Your task to perform on an android device: toggle location history Image 0: 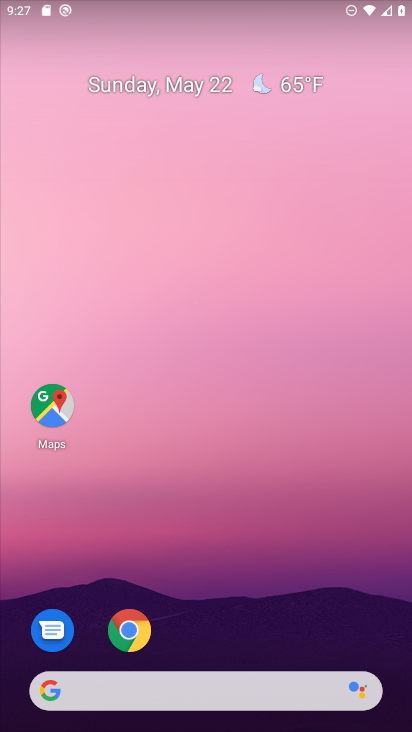
Step 0: click (48, 408)
Your task to perform on an android device: toggle location history Image 1: 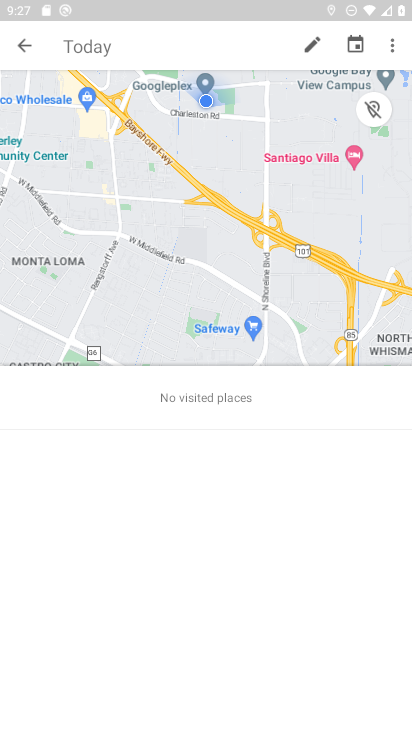
Step 1: click (392, 50)
Your task to perform on an android device: toggle location history Image 2: 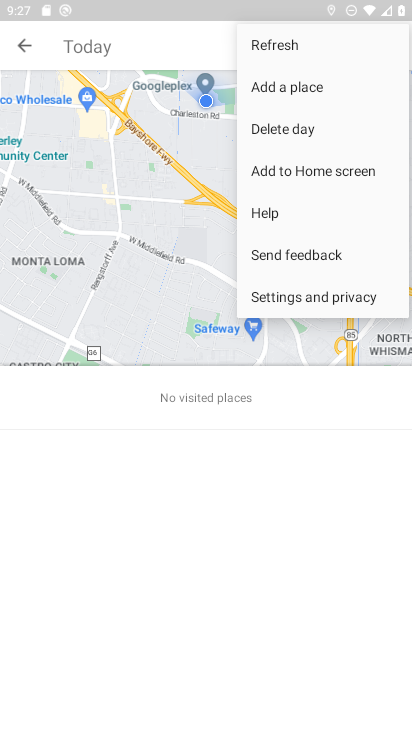
Step 2: click (268, 296)
Your task to perform on an android device: toggle location history Image 3: 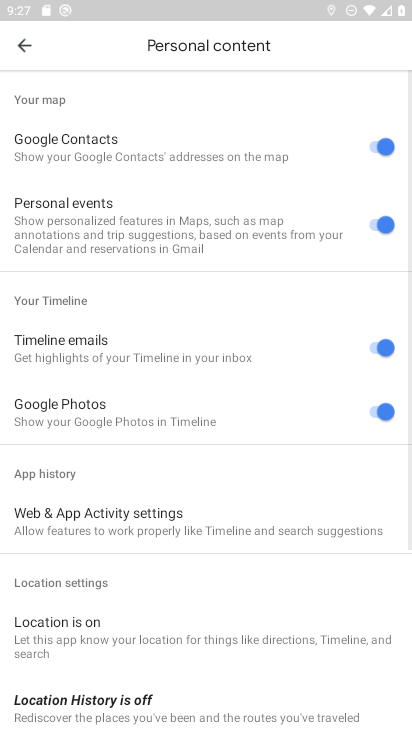
Step 3: drag from (174, 649) to (247, 271)
Your task to perform on an android device: toggle location history Image 4: 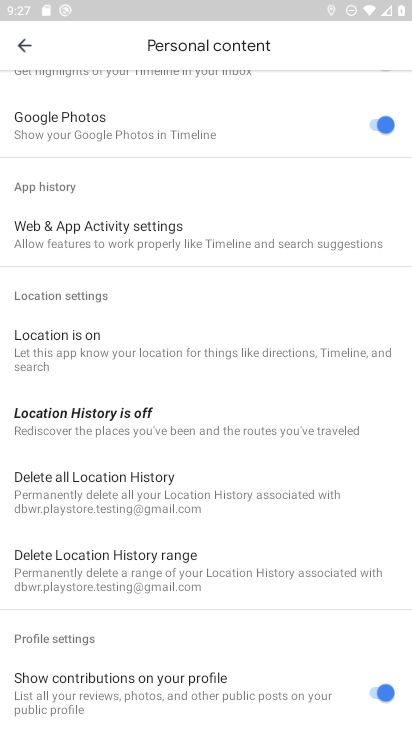
Step 4: click (124, 417)
Your task to perform on an android device: toggle location history Image 5: 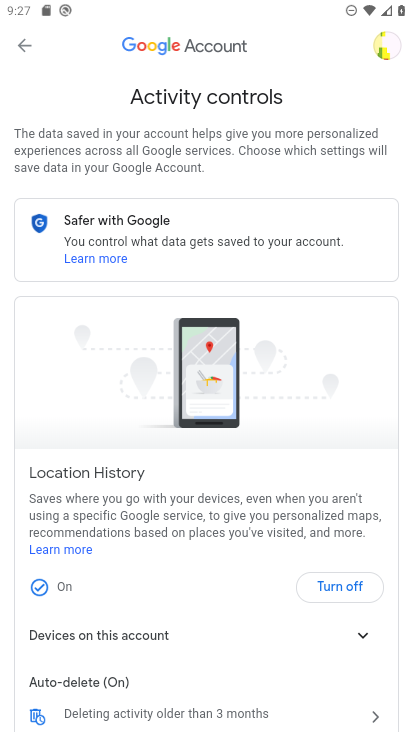
Step 5: click (341, 595)
Your task to perform on an android device: toggle location history Image 6: 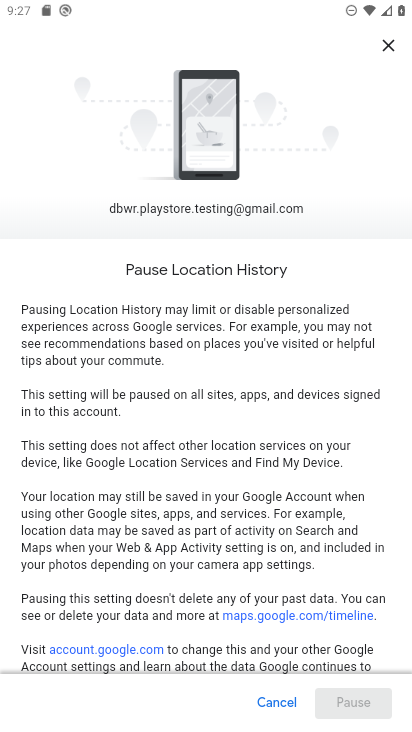
Step 6: drag from (222, 605) to (300, 144)
Your task to perform on an android device: toggle location history Image 7: 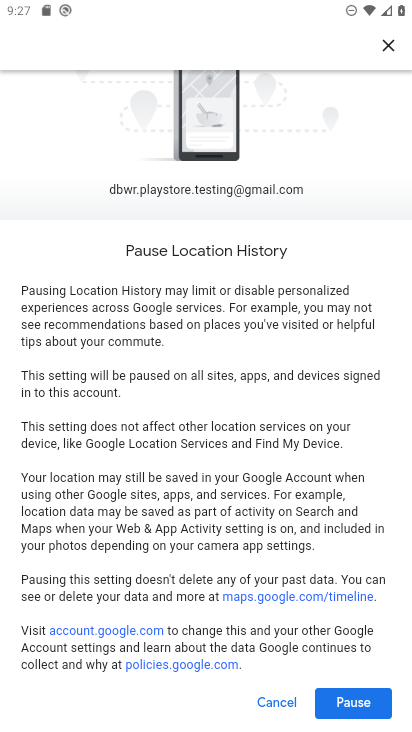
Step 7: click (354, 706)
Your task to perform on an android device: toggle location history Image 8: 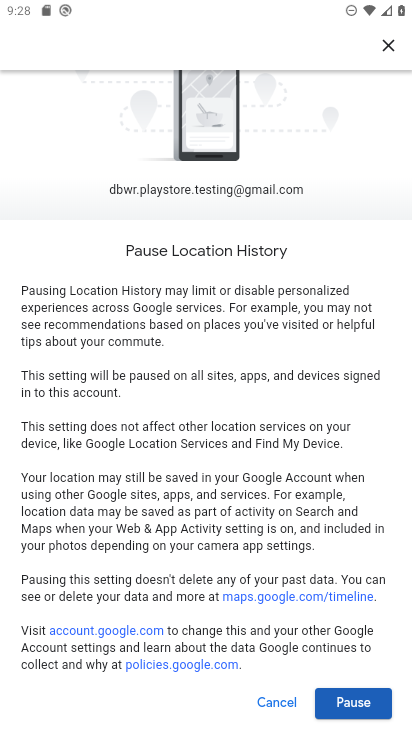
Step 8: click (356, 700)
Your task to perform on an android device: toggle location history Image 9: 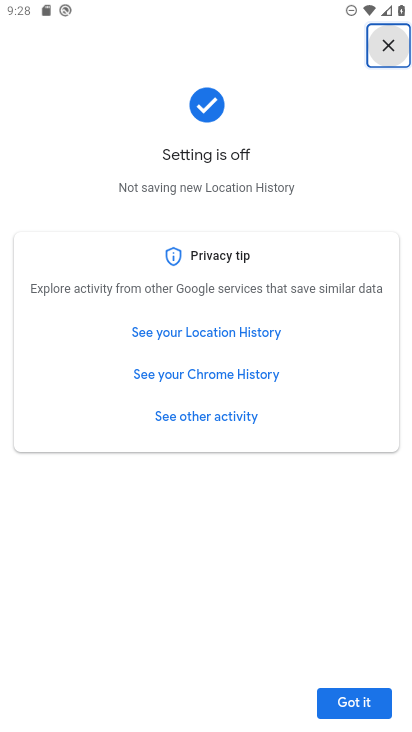
Step 9: click (353, 706)
Your task to perform on an android device: toggle location history Image 10: 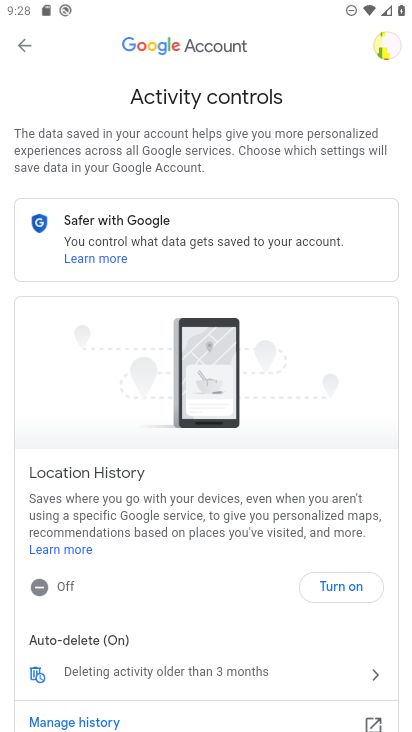
Step 10: task complete